Your task to perform on an android device: all mails in gmail Image 0: 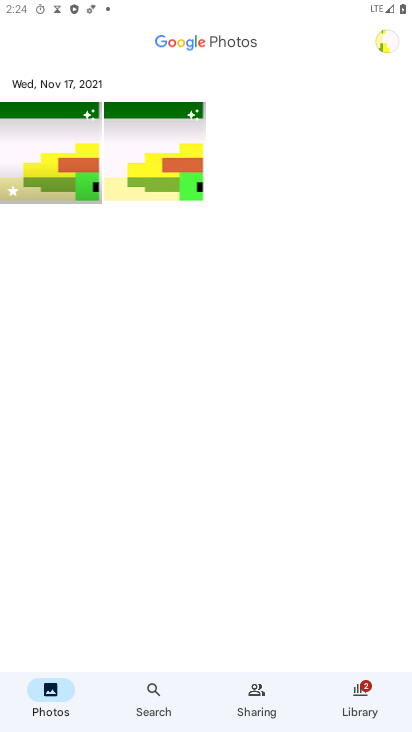
Step 0: press home button
Your task to perform on an android device: all mails in gmail Image 1: 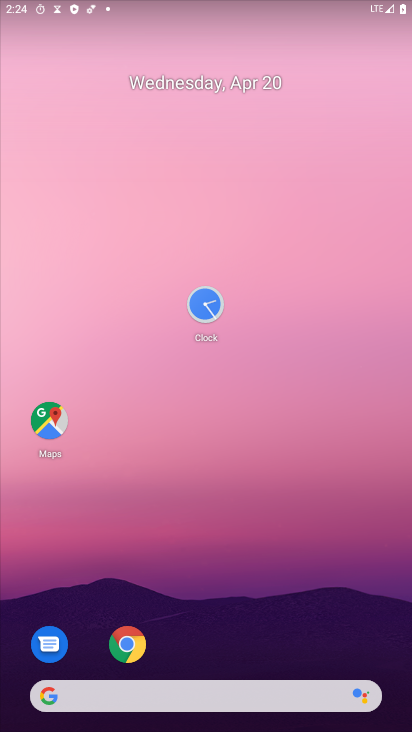
Step 1: drag from (293, 615) to (310, 49)
Your task to perform on an android device: all mails in gmail Image 2: 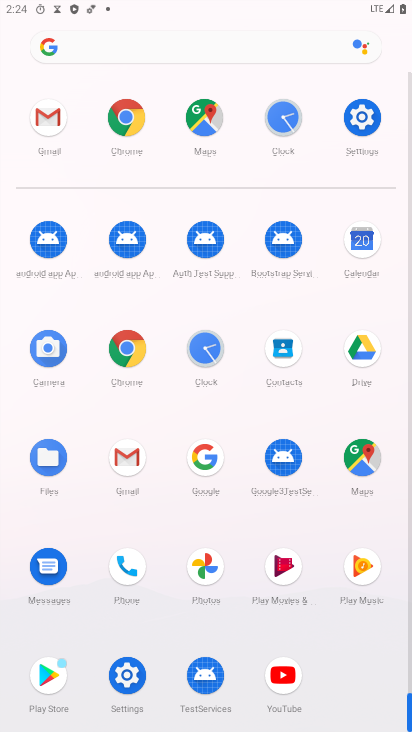
Step 2: click (132, 468)
Your task to perform on an android device: all mails in gmail Image 3: 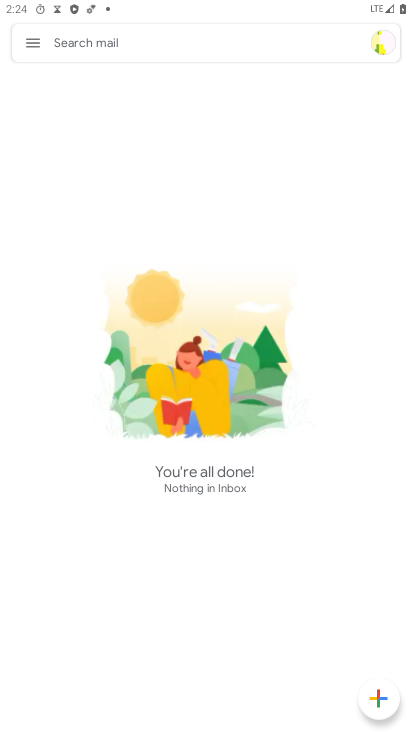
Step 3: click (32, 42)
Your task to perform on an android device: all mails in gmail Image 4: 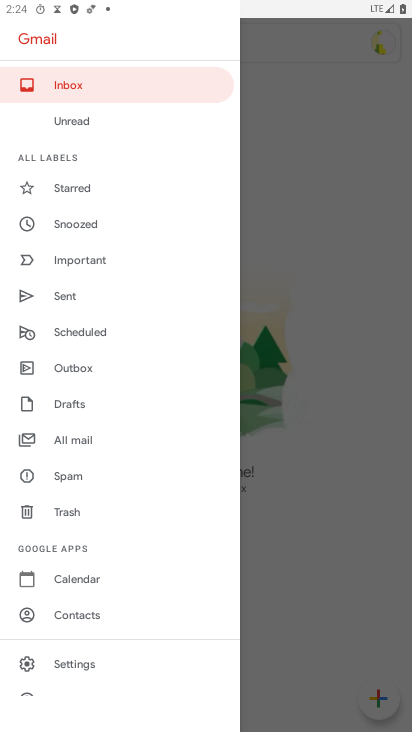
Step 4: click (82, 434)
Your task to perform on an android device: all mails in gmail Image 5: 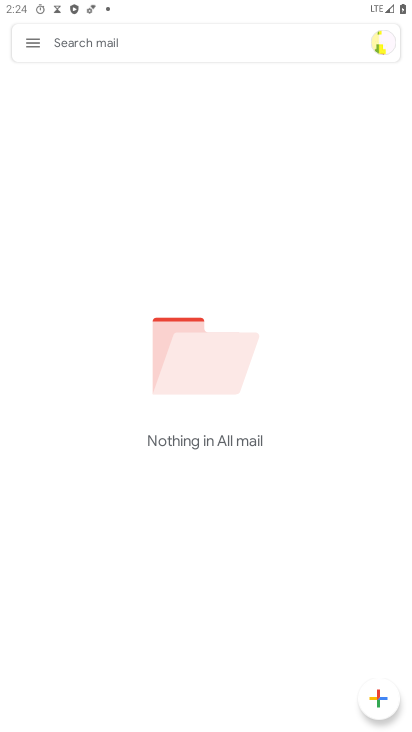
Step 5: task complete